Your task to perform on an android device: Open CNN.com Image 0: 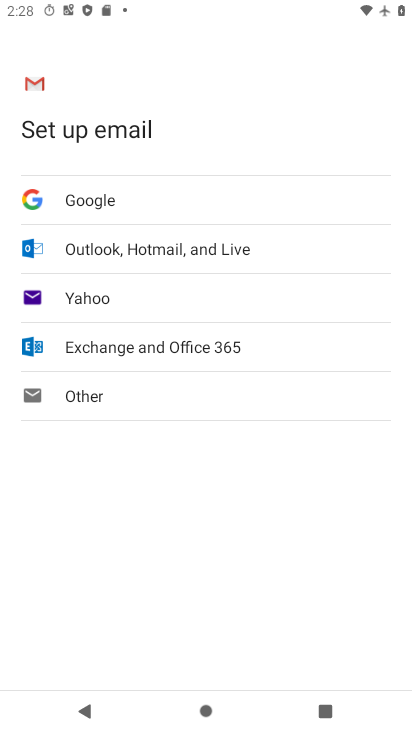
Step 0: press home button
Your task to perform on an android device: Open CNN.com Image 1: 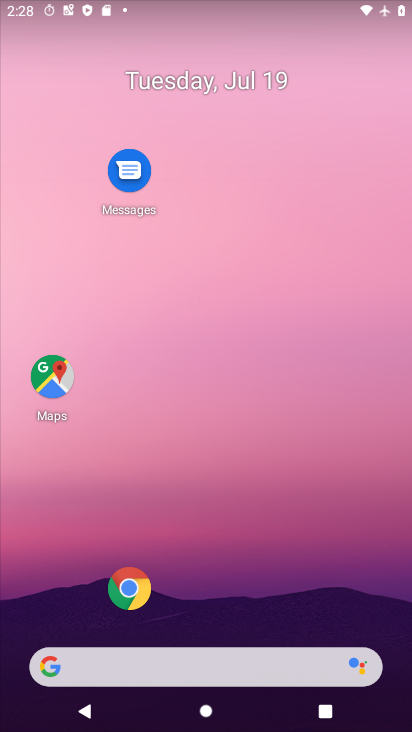
Step 1: click (76, 676)
Your task to perform on an android device: Open CNN.com Image 2: 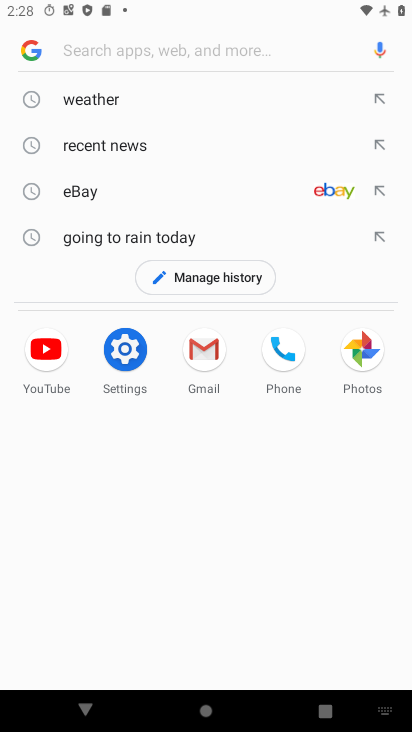
Step 2: type "CNN.com"
Your task to perform on an android device: Open CNN.com Image 3: 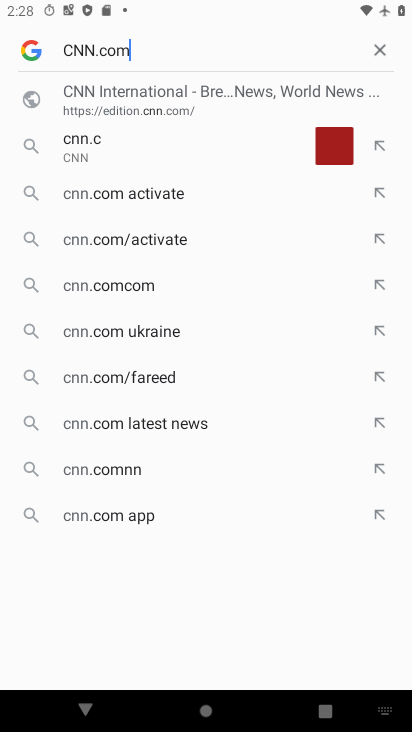
Step 3: type ""
Your task to perform on an android device: Open CNN.com Image 4: 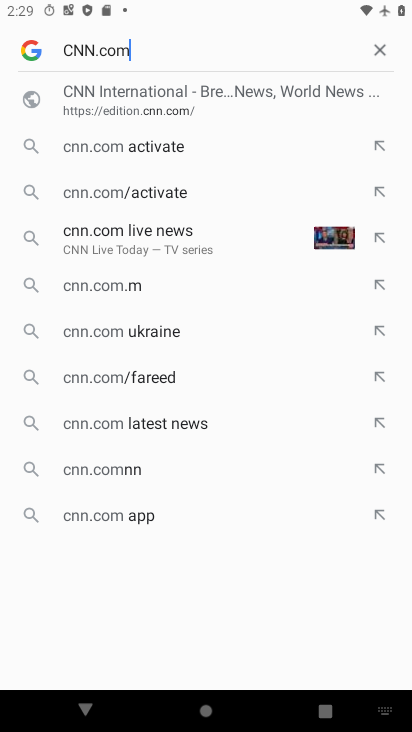
Step 4: click (94, 80)
Your task to perform on an android device: Open CNN.com Image 5: 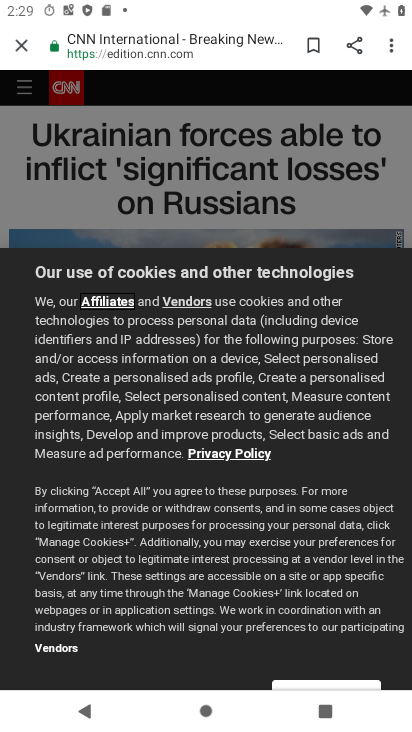
Step 5: task complete